Your task to perform on an android device: Go to calendar. Show me events next week Image 0: 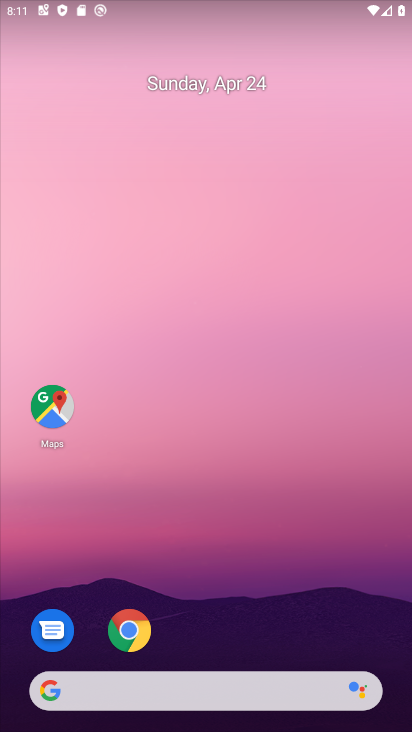
Step 0: drag from (264, 640) to (161, 47)
Your task to perform on an android device: Go to calendar. Show me events next week Image 1: 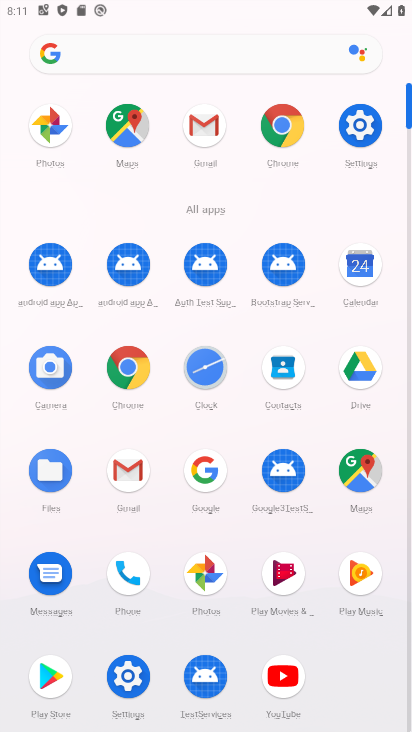
Step 1: click (358, 262)
Your task to perform on an android device: Go to calendar. Show me events next week Image 2: 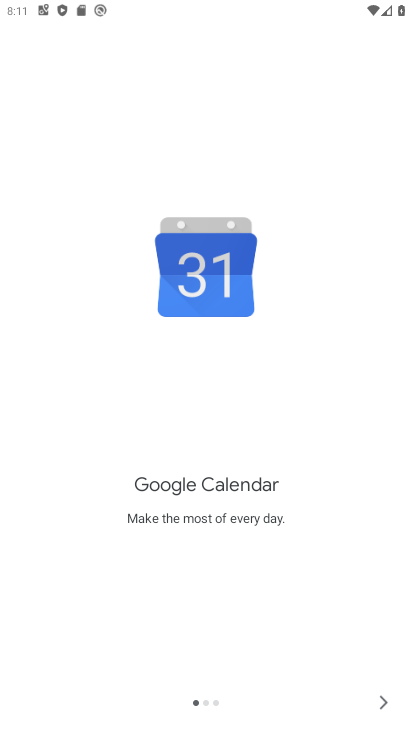
Step 2: click (377, 695)
Your task to perform on an android device: Go to calendar. Show me events next week Image 3: 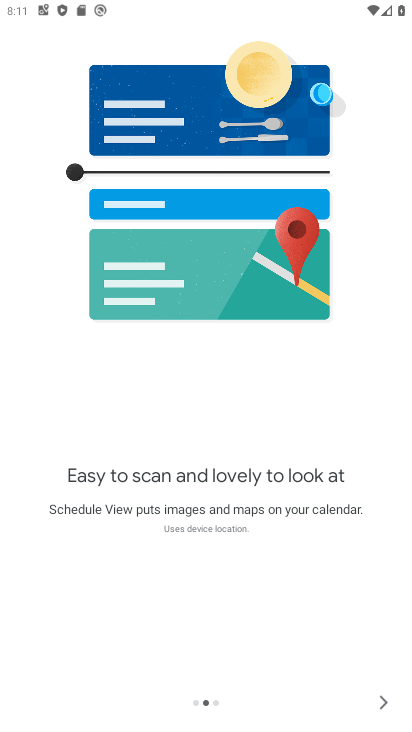
Step 3: click (377, 695)
Your task to perform on an android device: Go to calendar. Show me events next week Image 4: 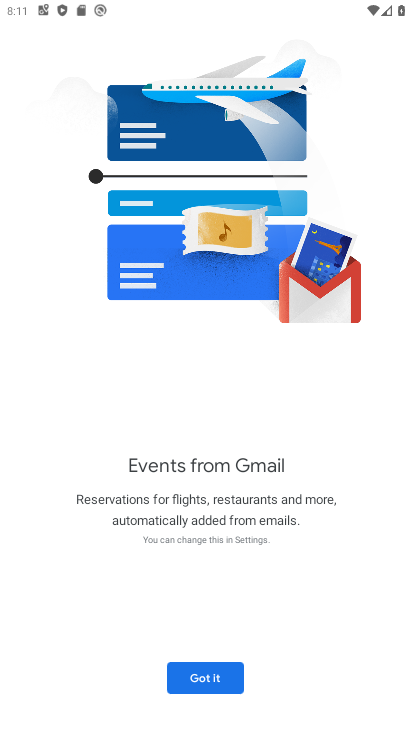
Step 4: click (228, 678)
Your task to perform on an android device: Go to calendar. Show me events next week Image 5: 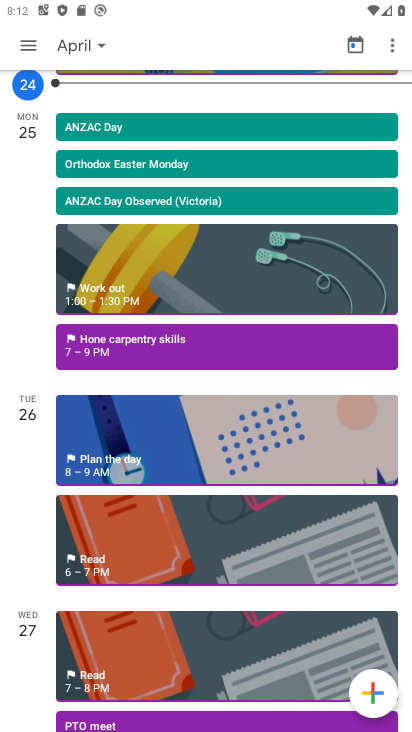
Step 5: click (76, 35)
Your task to perform on an android device: Go to calendar. Show me events next week Image 6: 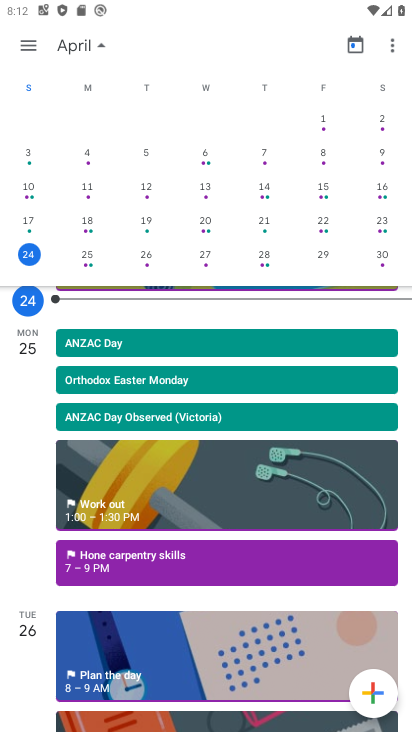
Step 6: task complete